Your task to perform on an android device: turn off wifi Image 0: 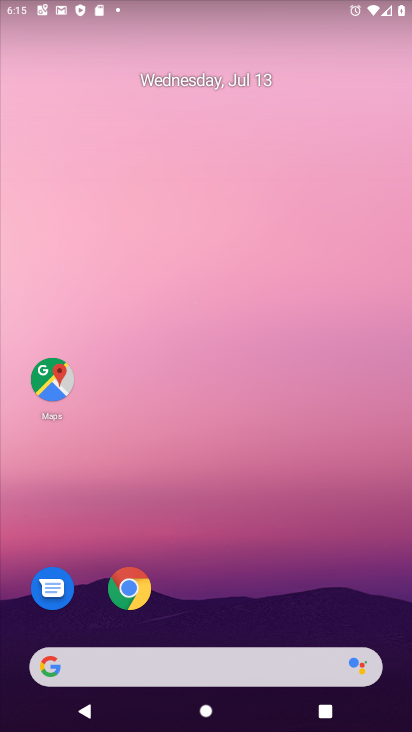
Step 0: drag from (214, 524) to (221, 3)
Your task to perform on an android device: turn off wifi Image 1: 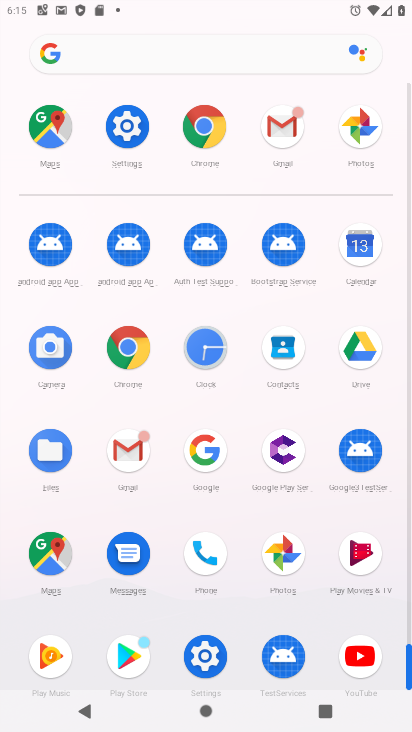
Step 1: click (129, 139)
Your task to perform on an android device: turn off wifi Image 2: 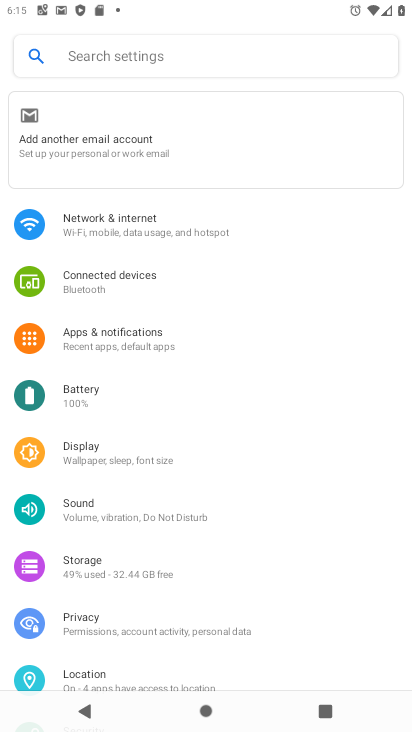
Step 2: click (129, 218)
Your task to perform on an android device: turn off wifi Image 3: 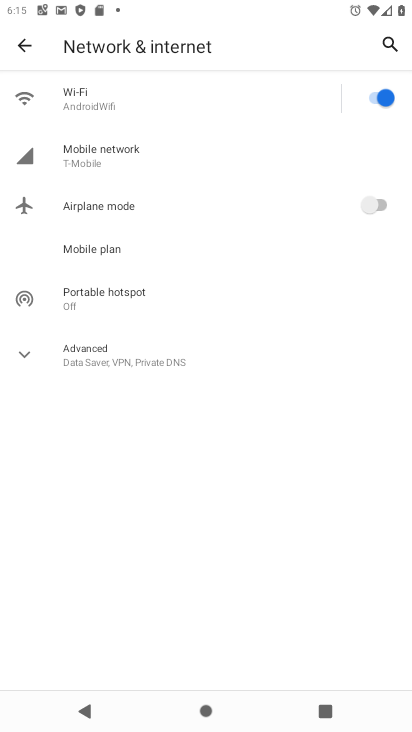
Step 3: click (374, 97)
Your task to perform on an android device: turn off wifi Image 4: 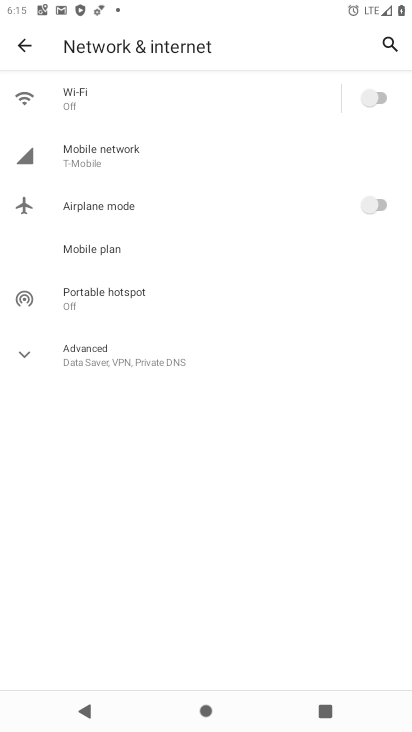
Step 4: task complete